Your task to perform on an android device: What's the price of the 2x4x8 boards at Home Depot? Image 0: 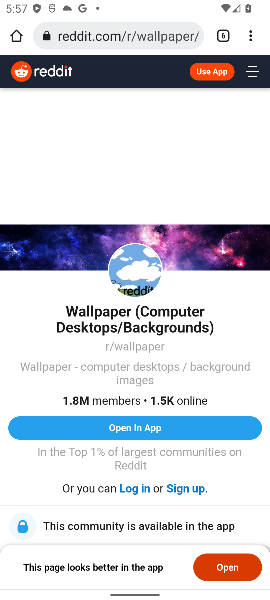
Step 0: press home button
Your task to perform on an android device: What's the price of the 2x4x8 boards at Home Depot? Image 1: 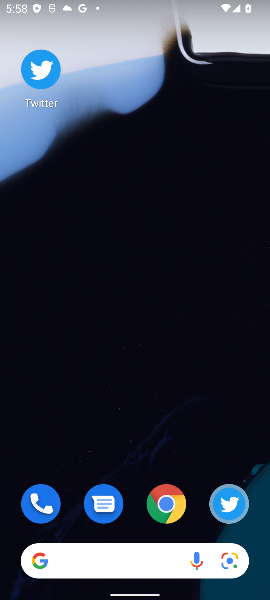
Step 1: click (115, 559)
Your task to perform on an android device: What's the price of the 2x4x8 boards at Home Depot? Image 2: 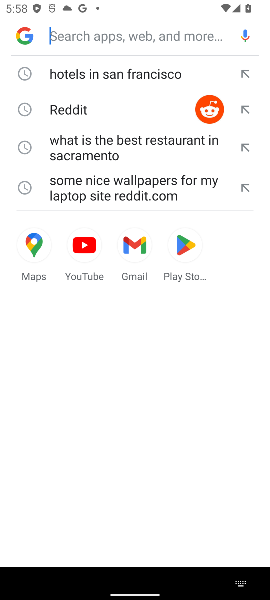
Step 2: click (110, 40)
Your task to perform on an android device: What's the price of the 2x4x8 boards at Home Depot? Image 3: 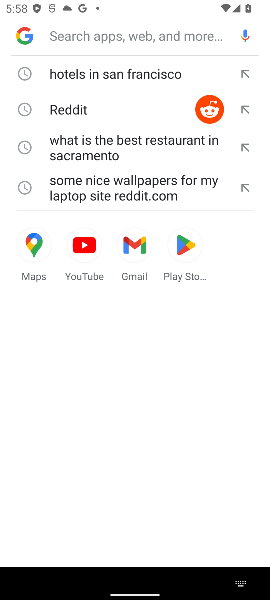
Step 3: type "What's the price of the 2x4x8 boards at Home Depot?"
Your task to perform on an android device: What's the price of the 2x4x8 boards at Home Depot? Image 4: 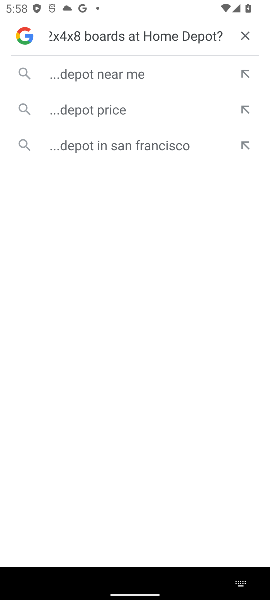
Step 4: click (96, 75)
Your task to perform on an android device: What's the price of the 2x4x8 boards at Home Depot? Image 5: 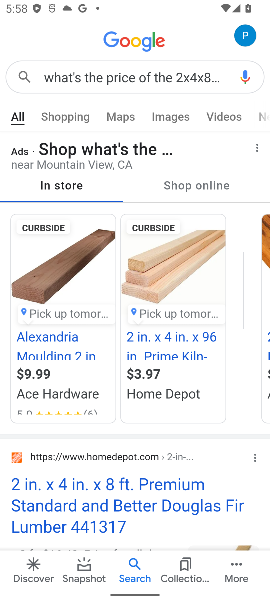
Step 5: task complete